Your task to perform on an android device: Open Amazon Image 0: 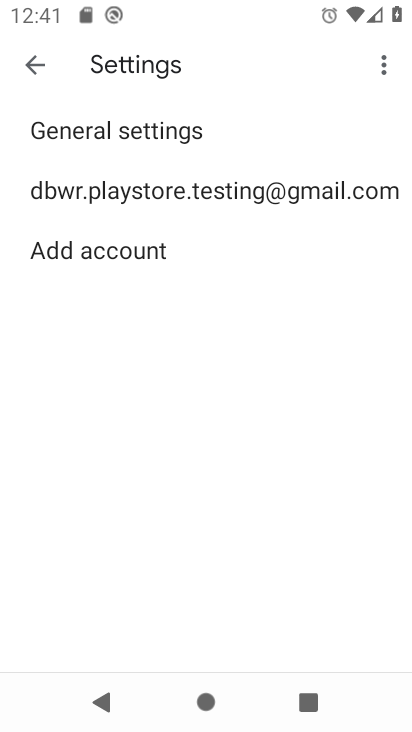
Step 0: drag from (257, 716) to (396, 183)
Your task to perform on an android device: Open Amazon Image 1: 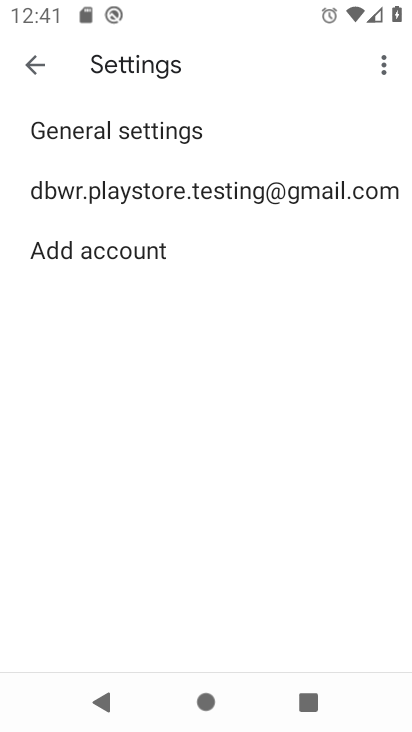
Step 1: press home button
Your task to perform on an android device: Open Amazon Image 2: 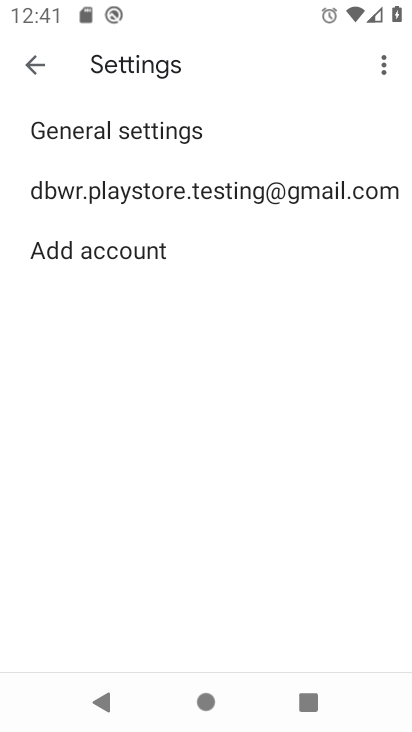
Step 2: drag from (396, 183) to (392, 408)
Your task to perform on an android device: Open Amazon Image 3: 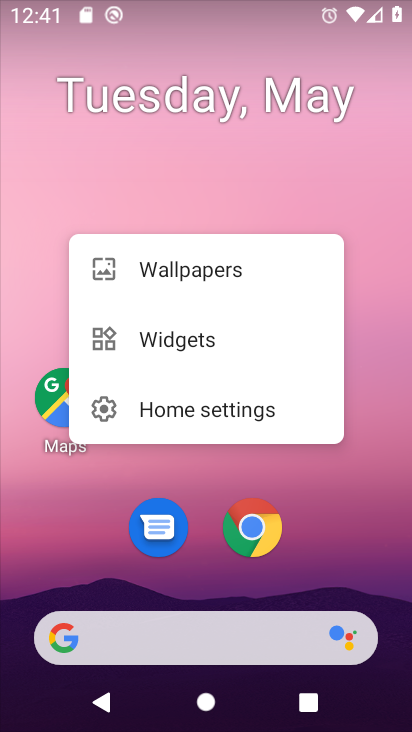
Step 3: click (203, 647)
Your task to perform on an android device: Open Amazon Image 4: 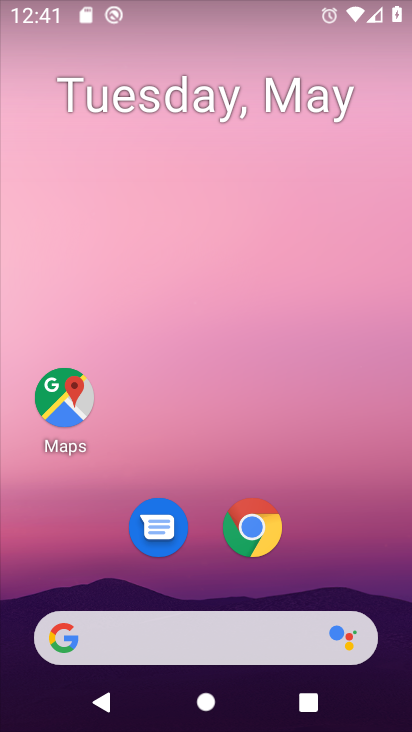
Step 4: click (205, 634)
Your task to perform on an android device: Open Amazon Image 5: 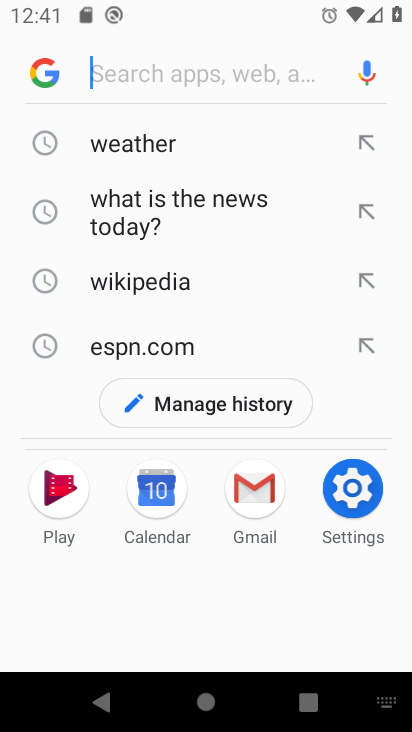
Step 5: type "amazon"
Your task to perform on an android device: Open Amazon Image 6: 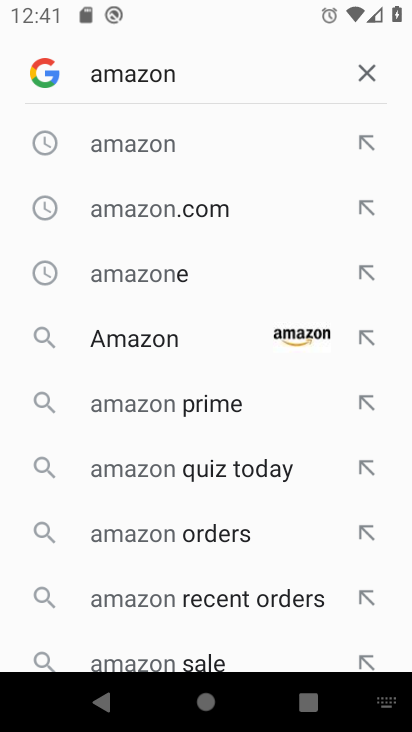
Step 6: click (272, 338)
Your task to perform on an android device: Open Amazon Image 7: 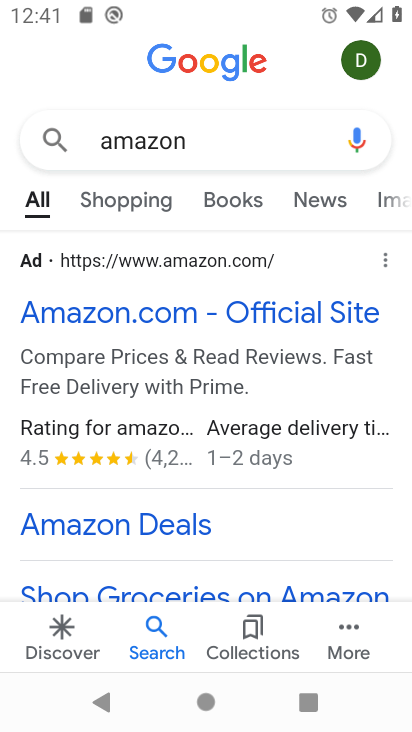
Step 7: task complete